Your task to perform on an android device: Play the last video I watched on Youtube Image 0: 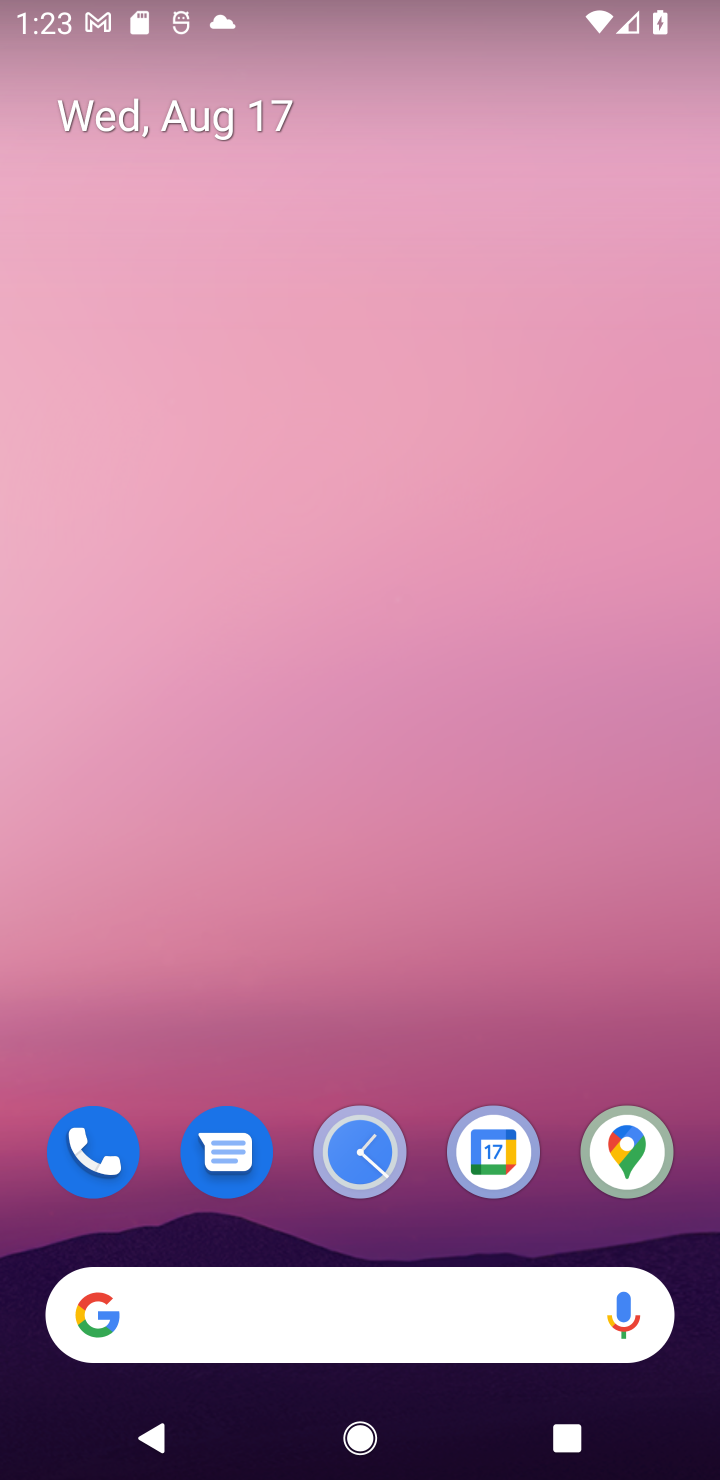
Step 0: drag from (548, 1137) to (311, 79)
Your task to perform on an android device: Play the last video I watched on Youtube Image 1: 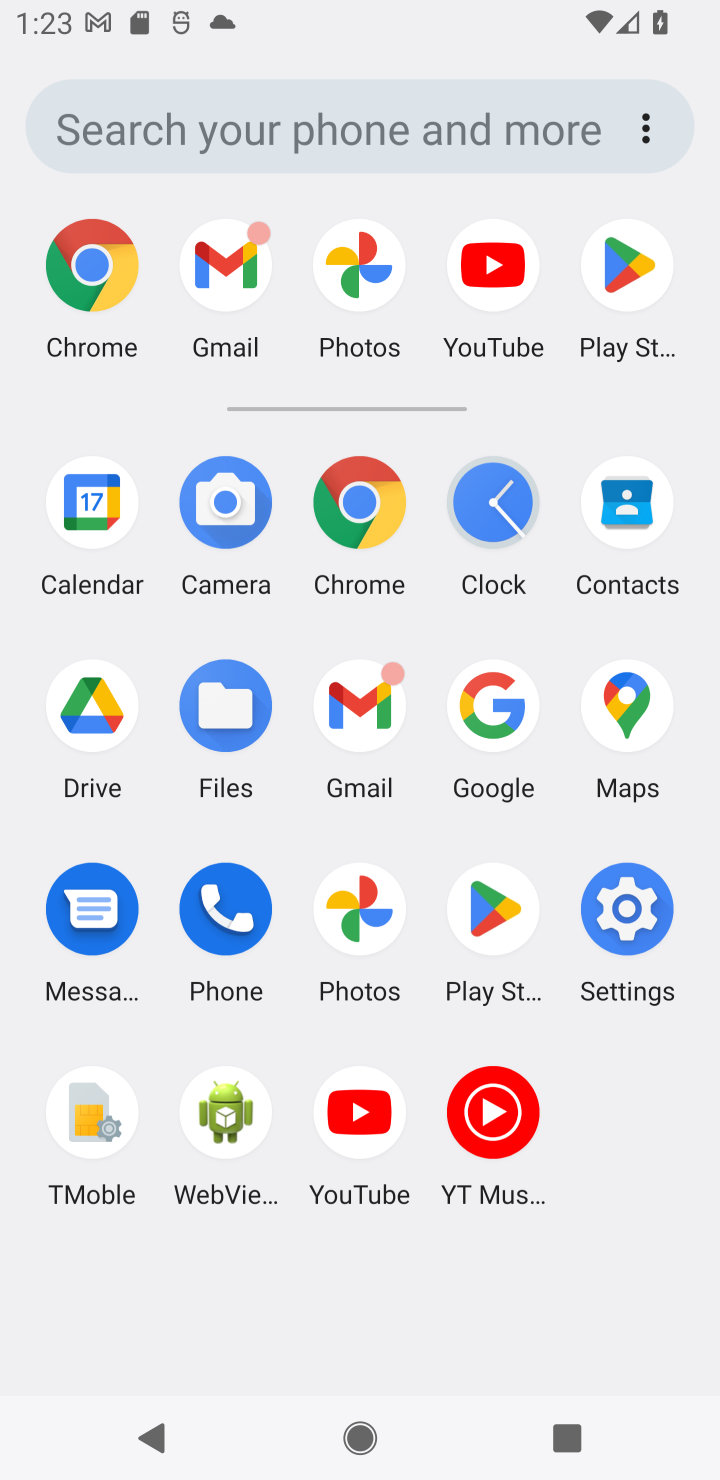
Step 1: click (334, 1132)
Your task to perform on an android device: Play the last video I watched on Youtube Image 2: 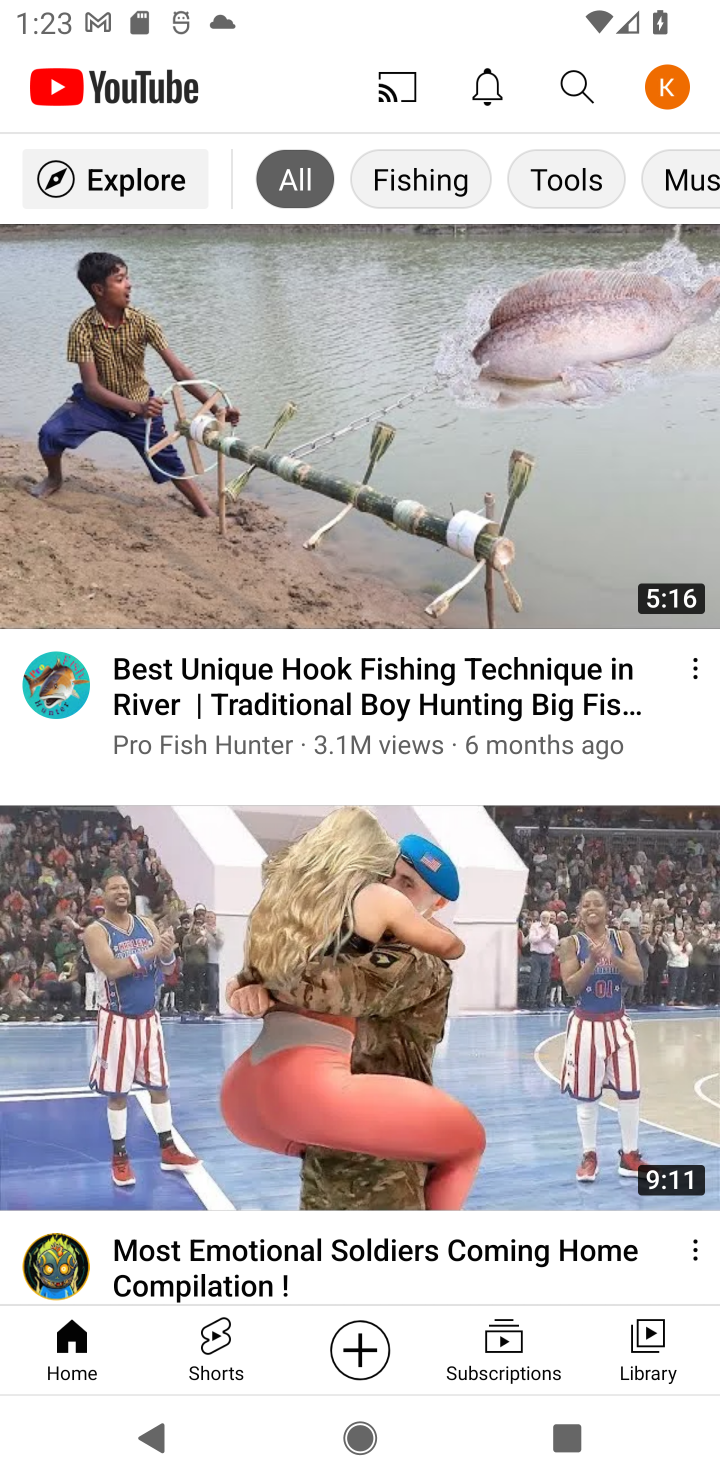
Step 2: task complete